Your task to perform on an android device: Open notification settings Image 0: 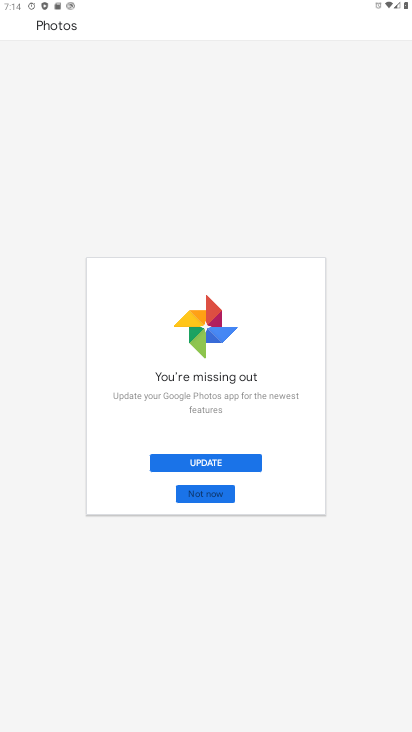
Step 0: press home button
Your task to perform on an android device: Open notification settings Image 1: 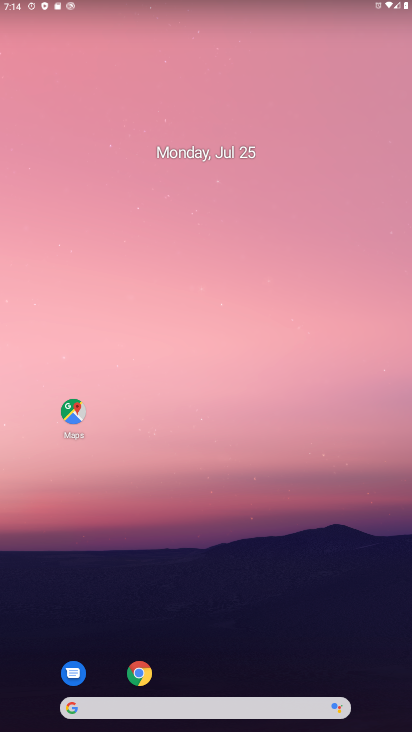
Step 1: drag from (387, 633) to (161, 84)
Your task to perform on an android device: Open notification settings Image 2: 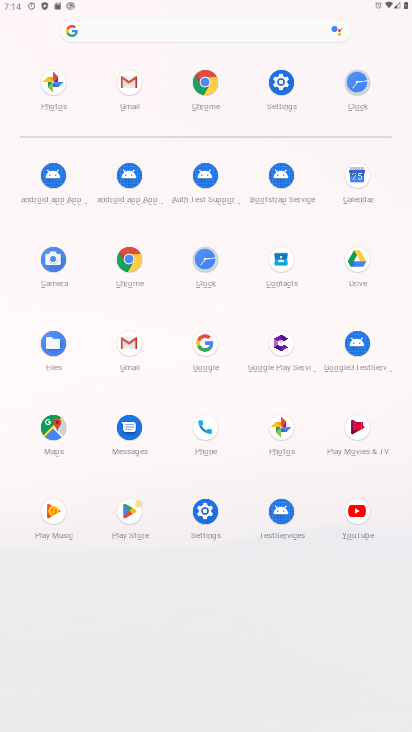
Step 2: click (220, 514)
Your task to perform on an android device: Open notification settings Image 3: 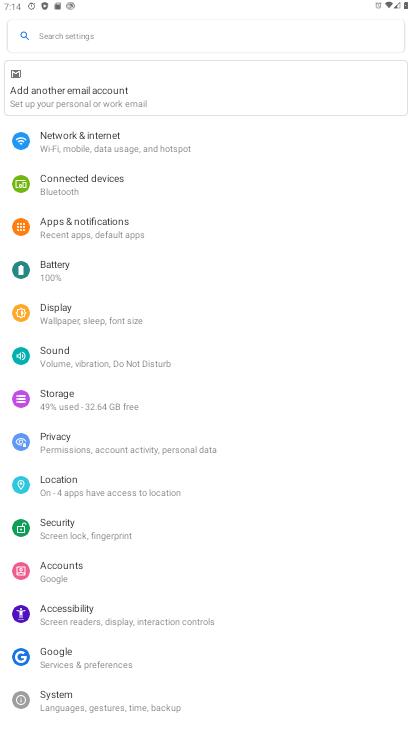
Step 3: click (113, 241)
Your task to perform on an android device: Open notification settings Image 4: 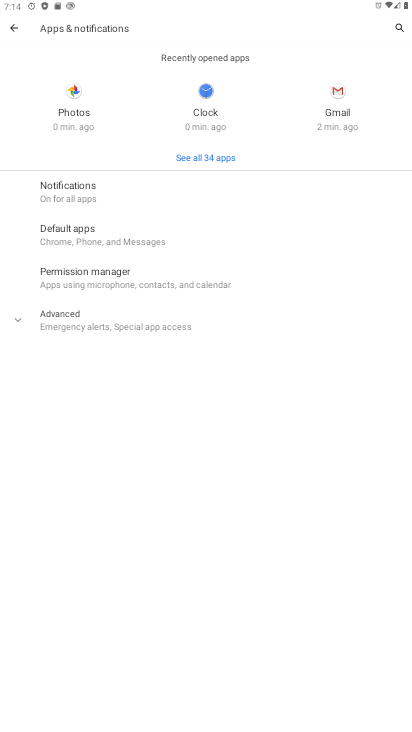
Step 4: click (140, 207)
Your task to perform on an android device: Open notification settings Image 5: 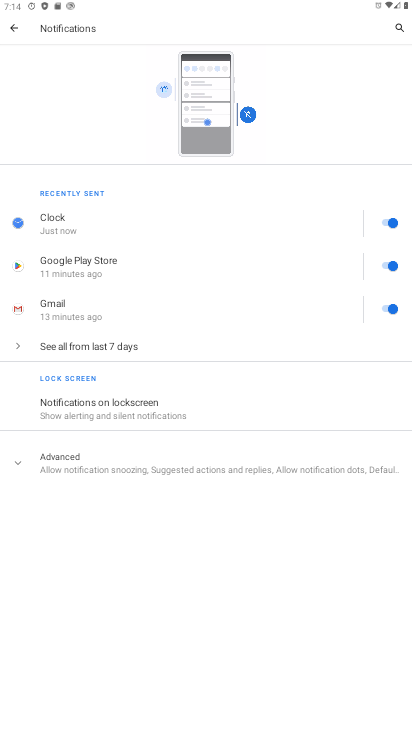
Step 5: task complete